Your task to perform on an android device: Go to Google Image 0: 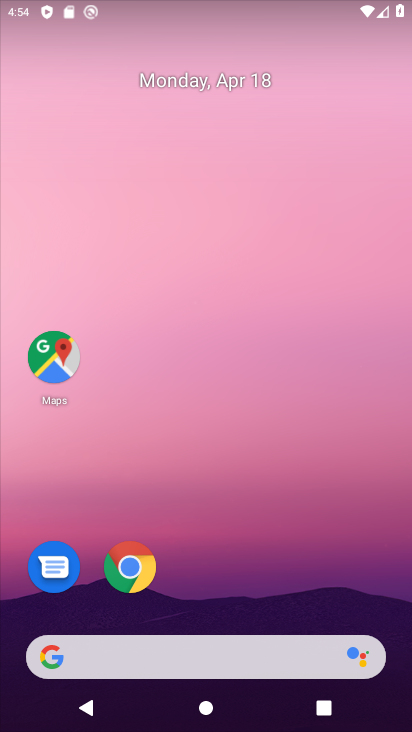
Step 0: drag from (206, 600) to (246, 68)
Your task to perform on an android device: Go to Google Image 1: 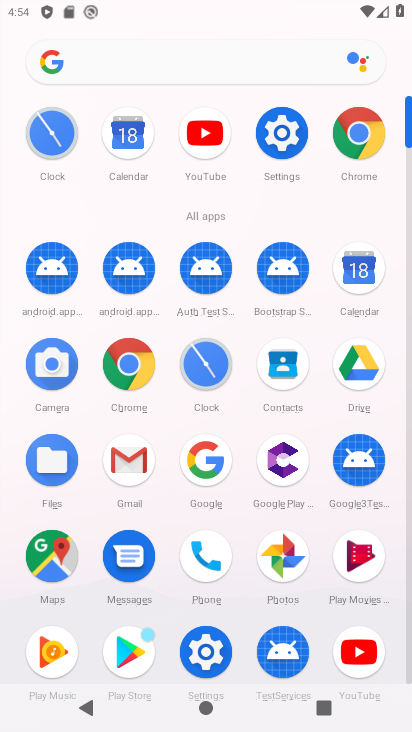
Step 1: click (198, 454)
Your task to perform on an android device: Go to Google Image 2: 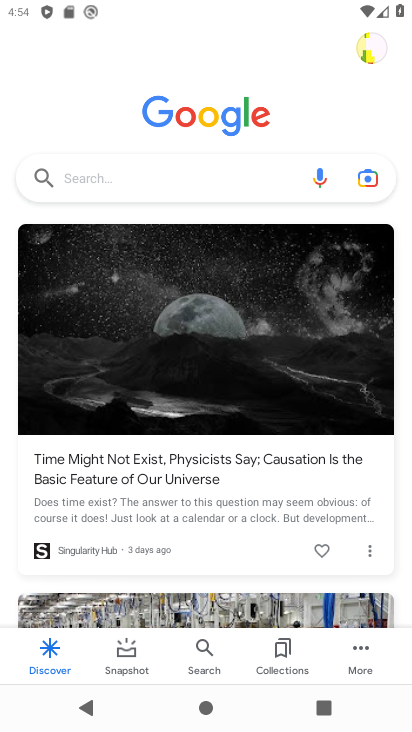
Step 2: task complete